Your task to perform on an android device: Clear all items from cart on bestbuy. Image 0: 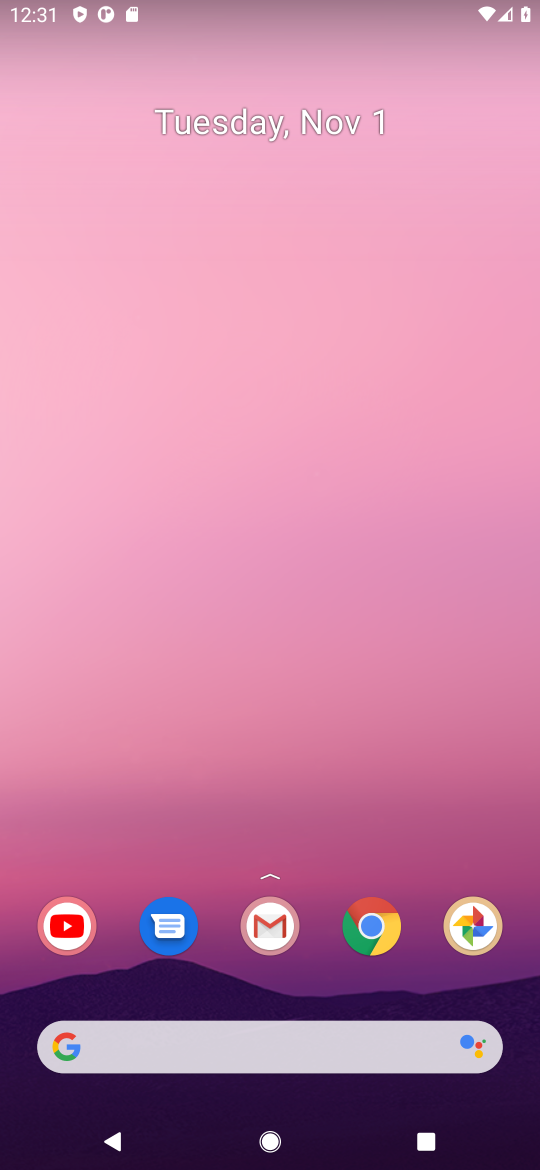
Step 0: click (370, 917)
Your task to perform on an android device: Clear all items from cart on bestbuy. Image 1: 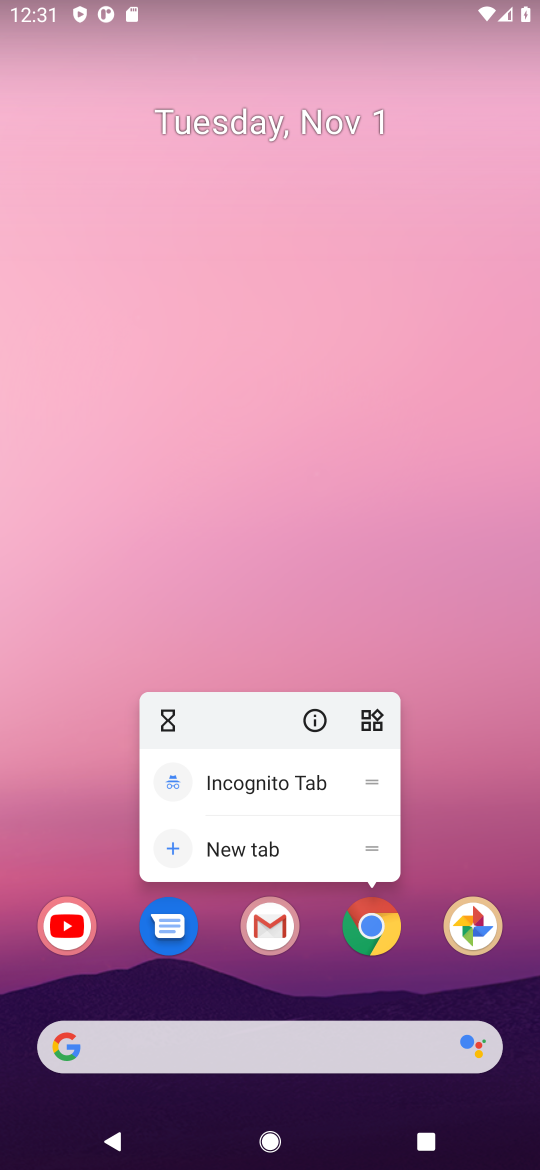
Step 1: click (377, 945)
Your task to perform on an android device: Clear all items from cart on bestbuy. Image 2: 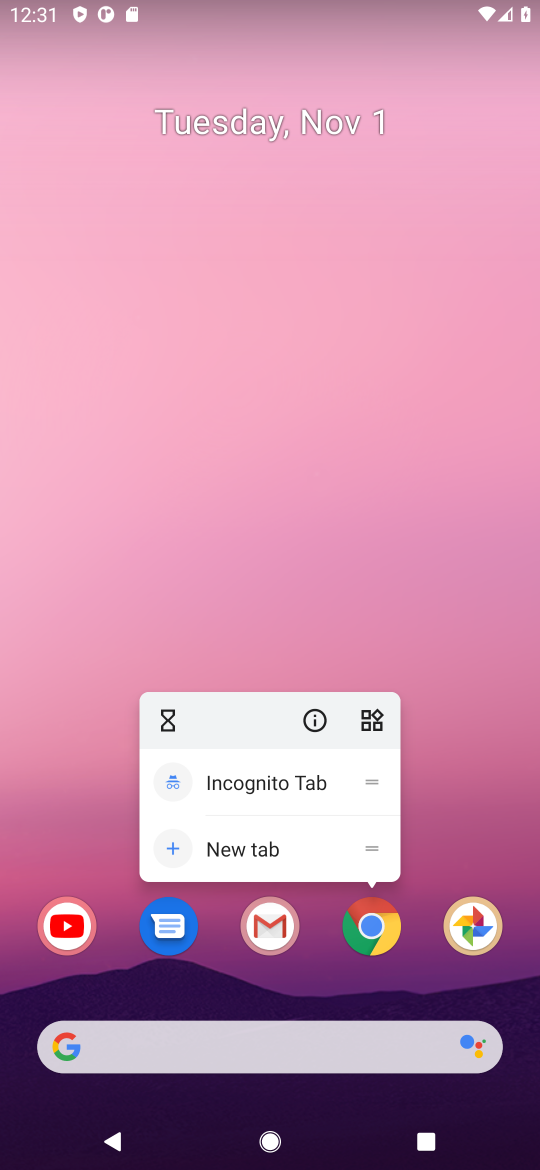
Step 2: click (364, 926)
Your task to perform on an android device: Clear all items from cart on bestbuy. Image 3: 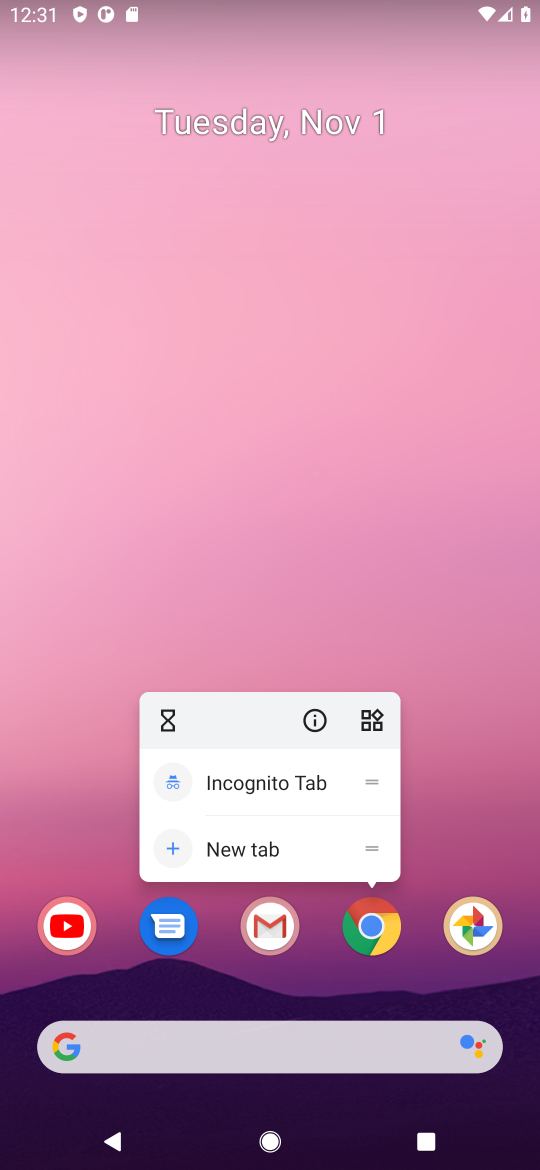
Step 3: click (380, 929)
Your task to perform on an android device: Clear all items from cart on bestbuy. Image 4: 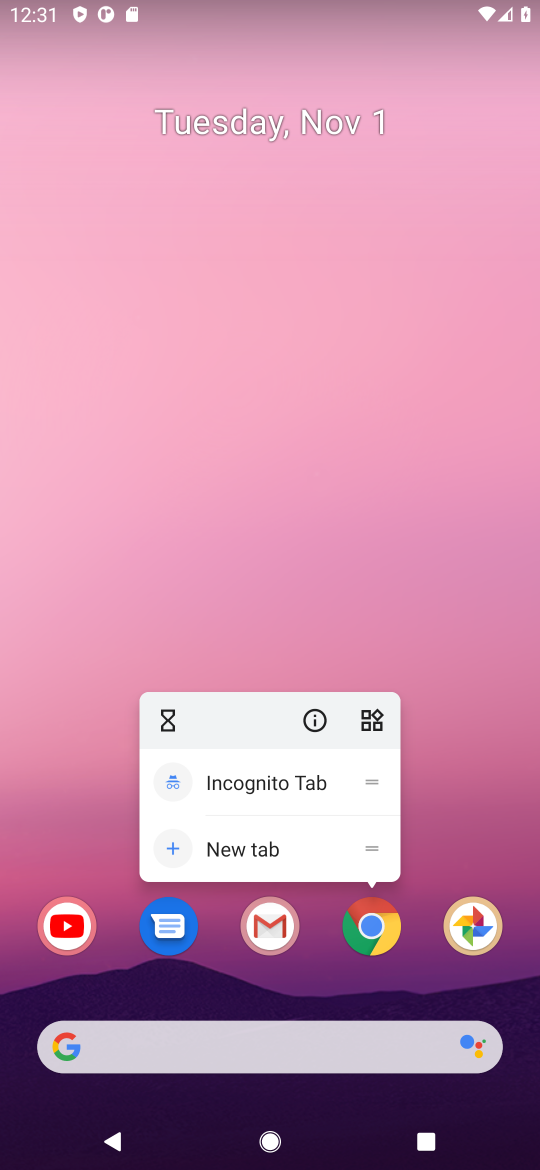
Step 4: click (376, 928)
Your task to perform on an android device: Clear all items from cart on bestbuy. Image 5: 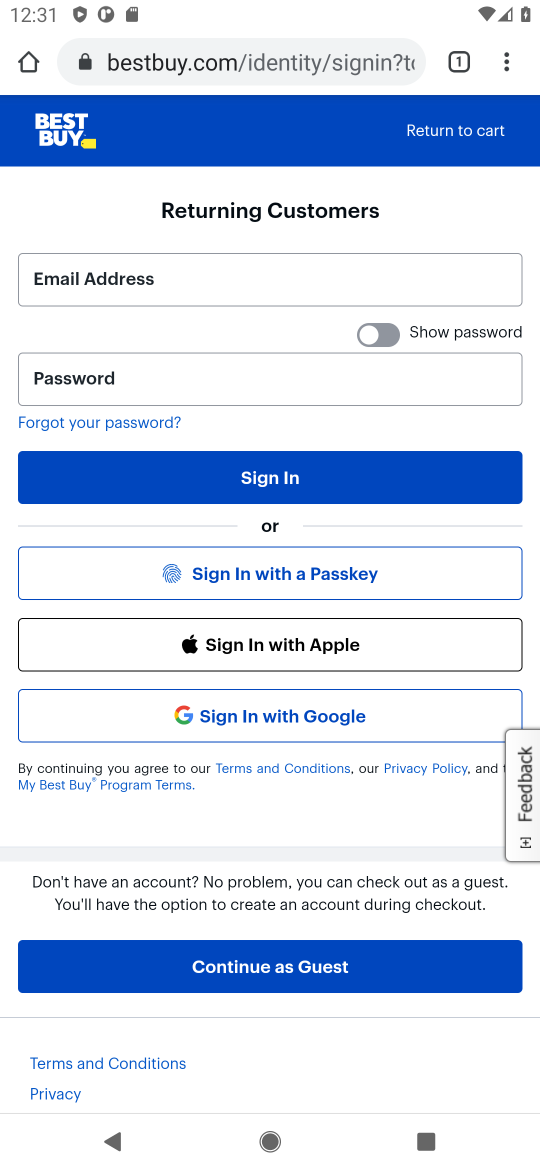
Step 5: click (164, 68)
Your task to perform on an android device: Clear all items from cart on bestbuy. Image 6: 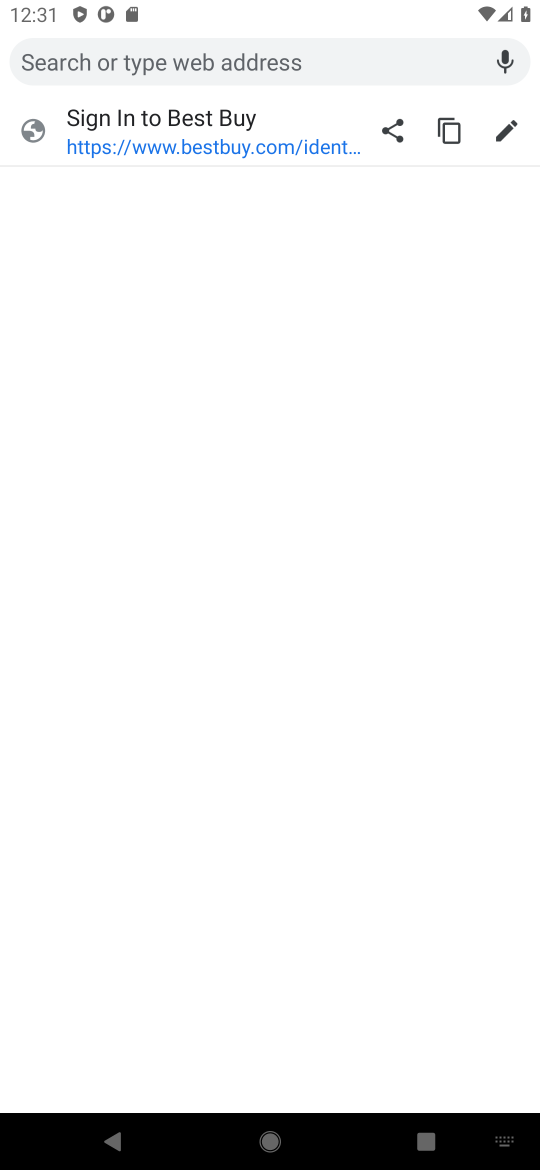
Step 6: click (231, 157)
Your task to perform on an android device: Clear all items from cart on bestbuy. Image 7: 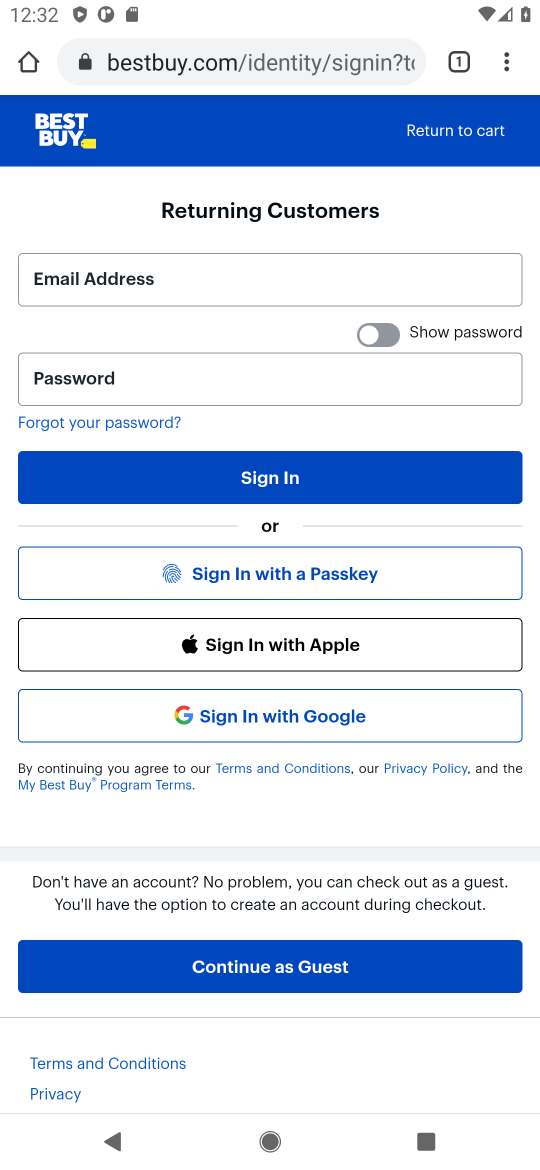
Step 7: click (83, 139)
Your task to perform on an android device: Clear all items from cart on bestbuy. Image 8: 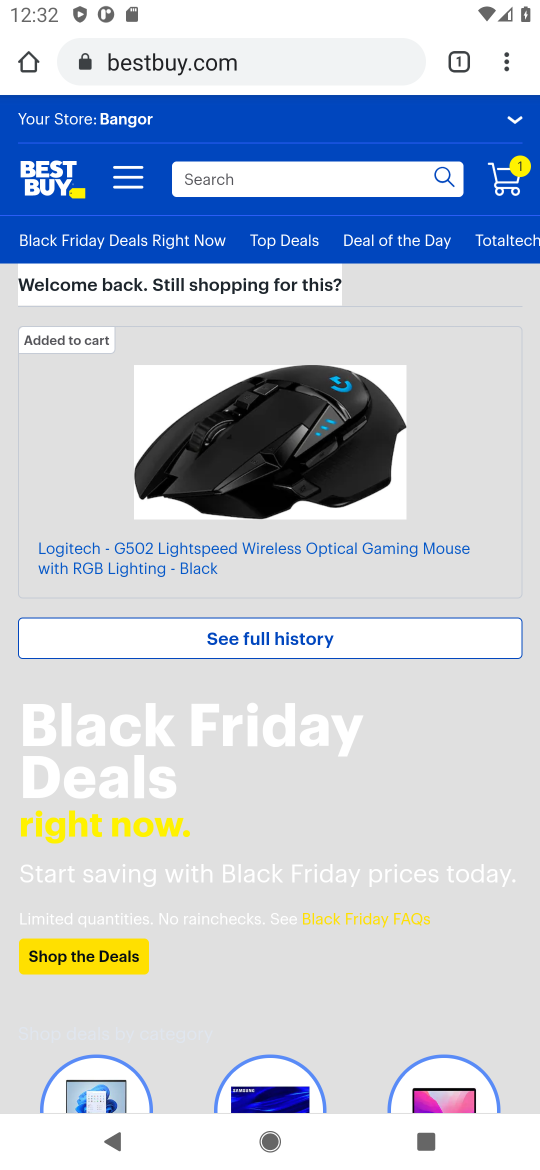
Step 8: click (492, 184)
Your task to perform on an android device: Clear all items from cart on bestbuy. Image 9: 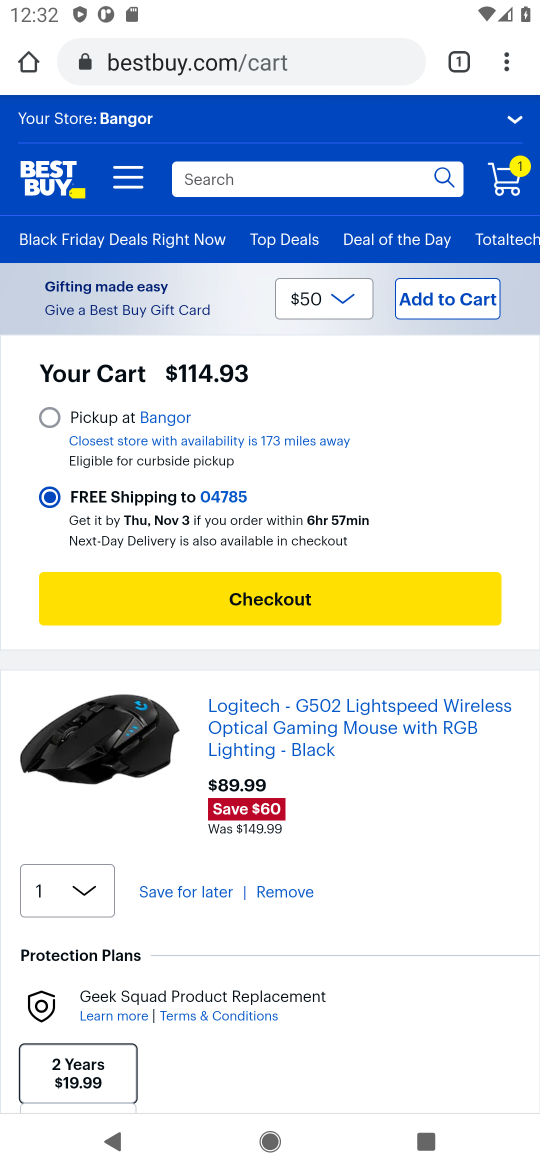
Step 9: drag from (339, 1009) to (469, 335)
Your task to perform on an android device: Clear all items from cart on bestbuy. Image 10: 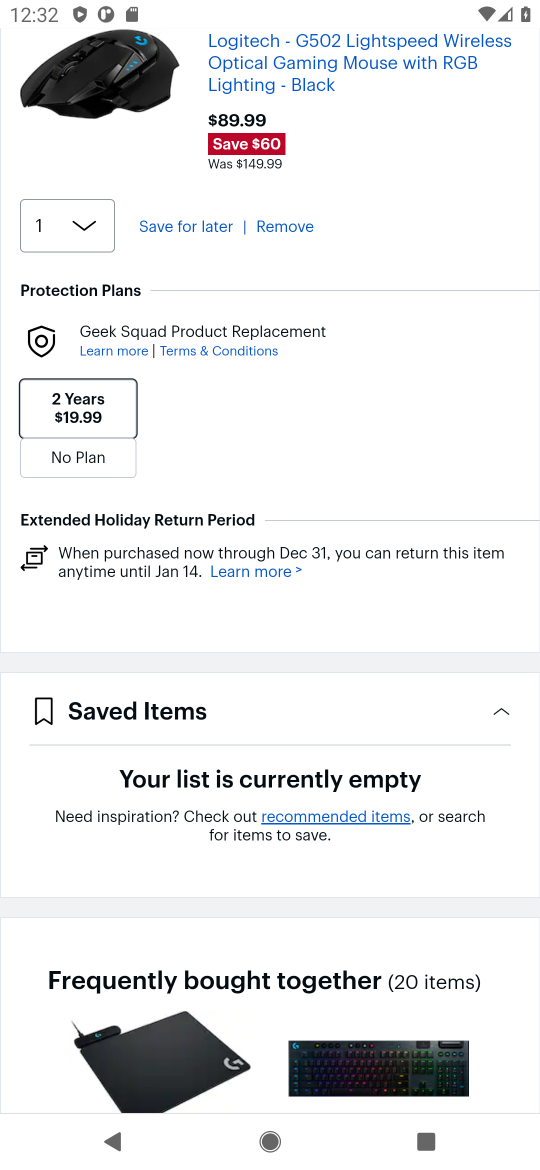
Step 10: drag from (343, 771) to (346, 450)
Your task to perform on an android device: Clear all items from cart on bestbuy. Image 11: 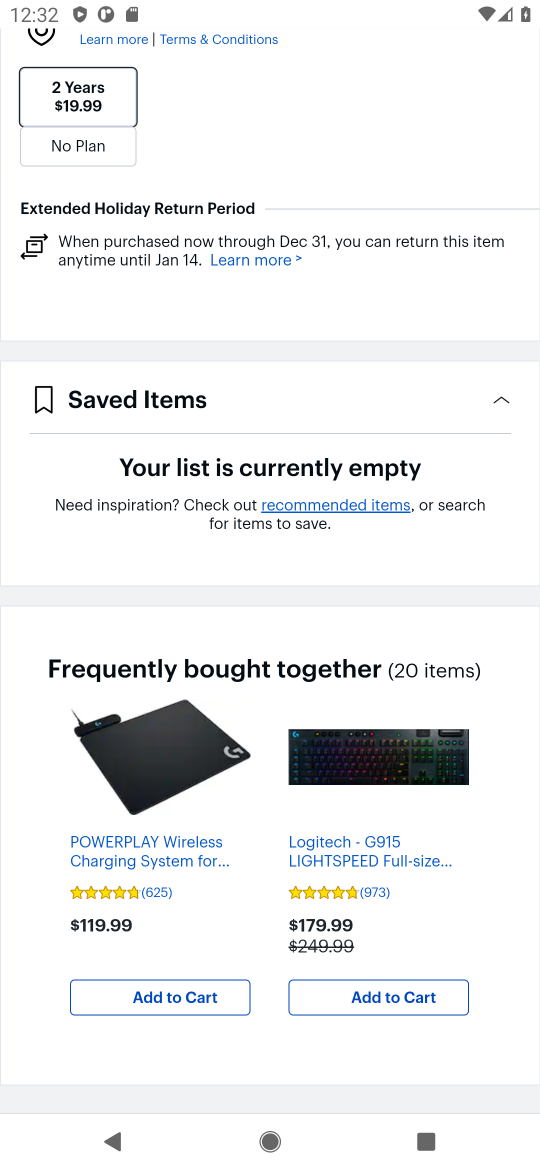
Step 11: drag from (339, 553) to (358, 960)
Your task to perform on an android device: Clear all items from cart on bestbuy. Image 12: 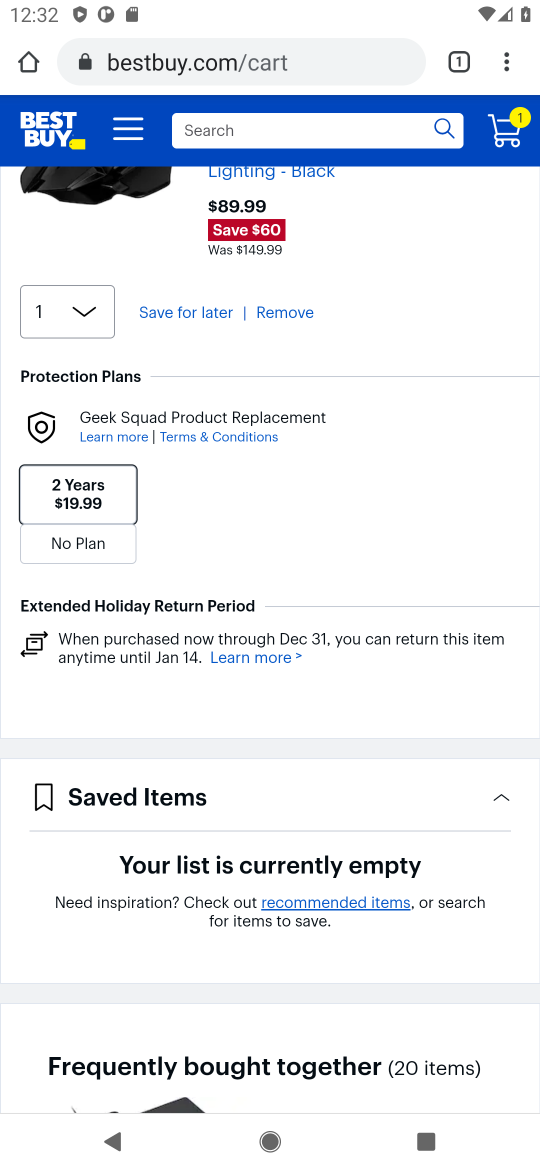
Step 12: click (271, 310)
Your task to perform on an android device: Clear all items from cart on bestbuy. Image 13: 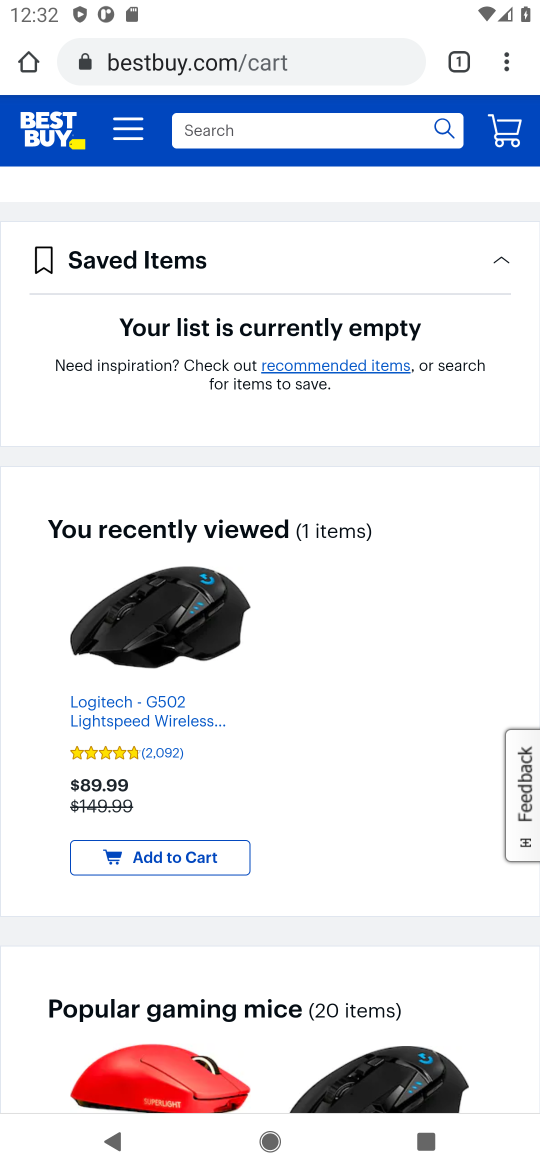
Step 13: drag from (335, 820) to (357, 512)
Your task to perform on an android device: Clear all items from cart on bestbuy. Image 14: 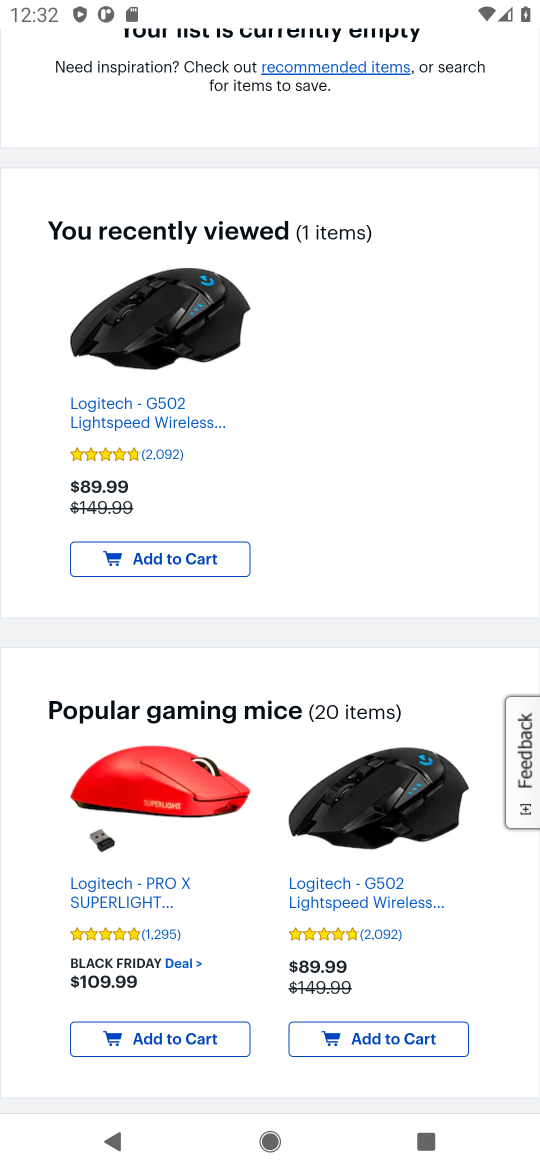
Step 14: press back button
Your task to perform on an android device: Clear all items from cart on bestbuy. Image 15: 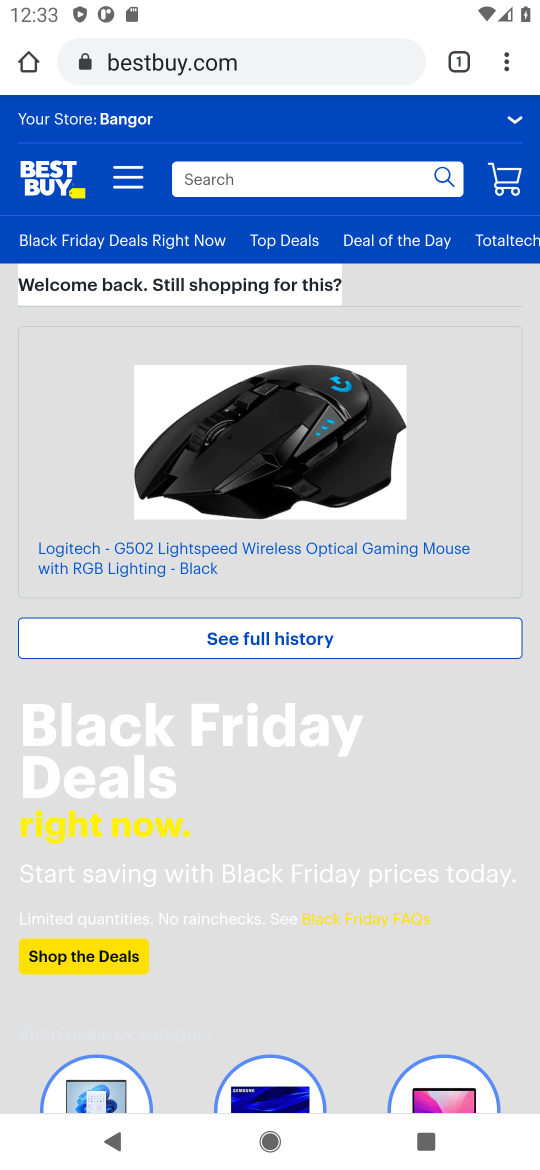
Step 15: press back button
Your task to perform on an android device: Clear all items from cart on bestbuy. Image 16: 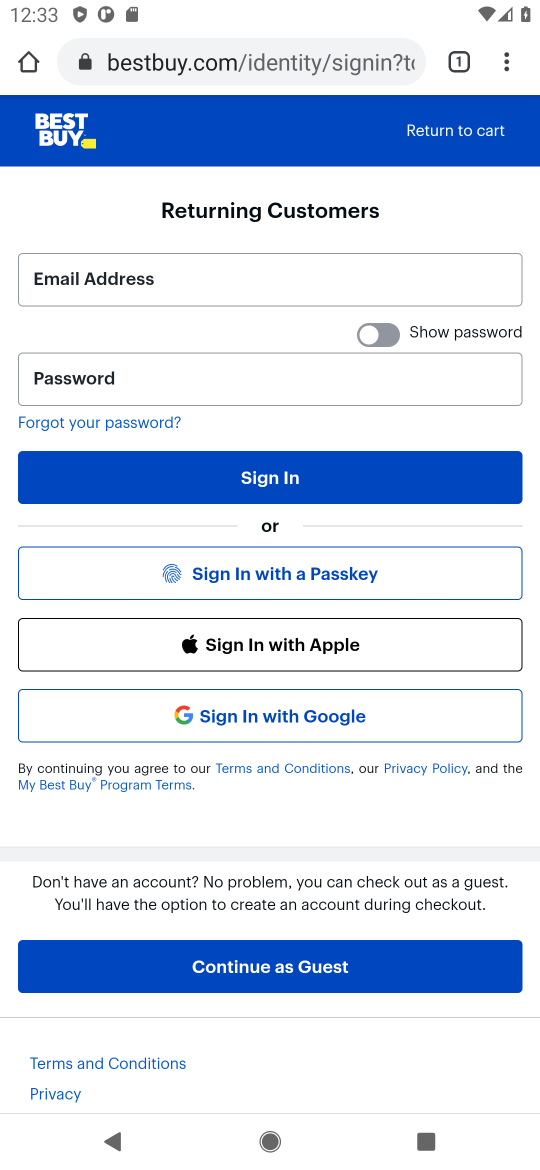
Step 16: press back button
Your task to perform on an android device: Clear all items from cart on bestbuy. Image 17: 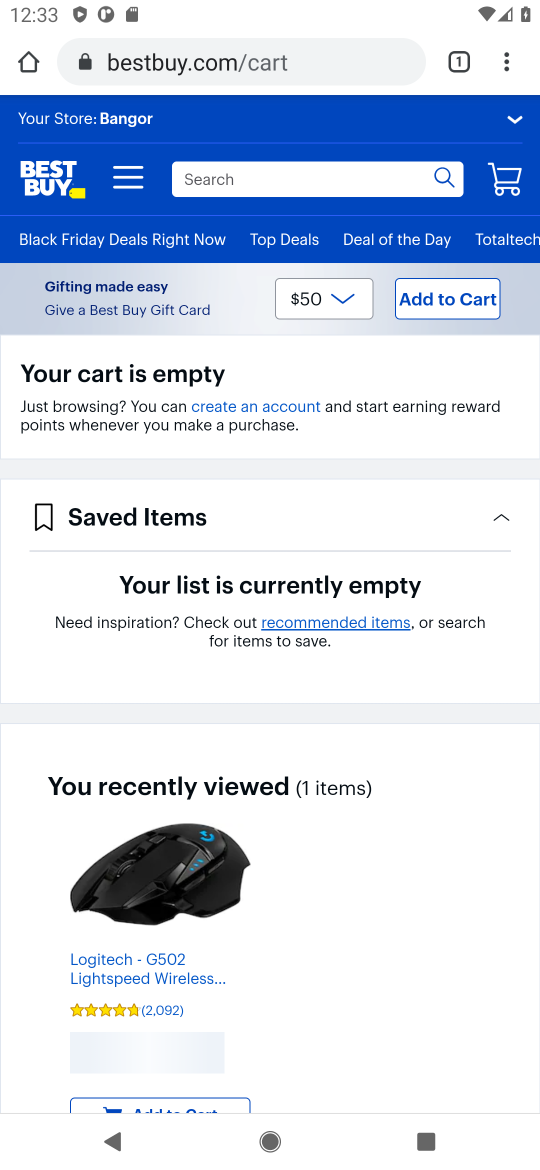
Step 17: drag from (419, 933) to (335, 340)
Your task to perform on an android device: Clear all items from cart on bestbuy. Image 18: 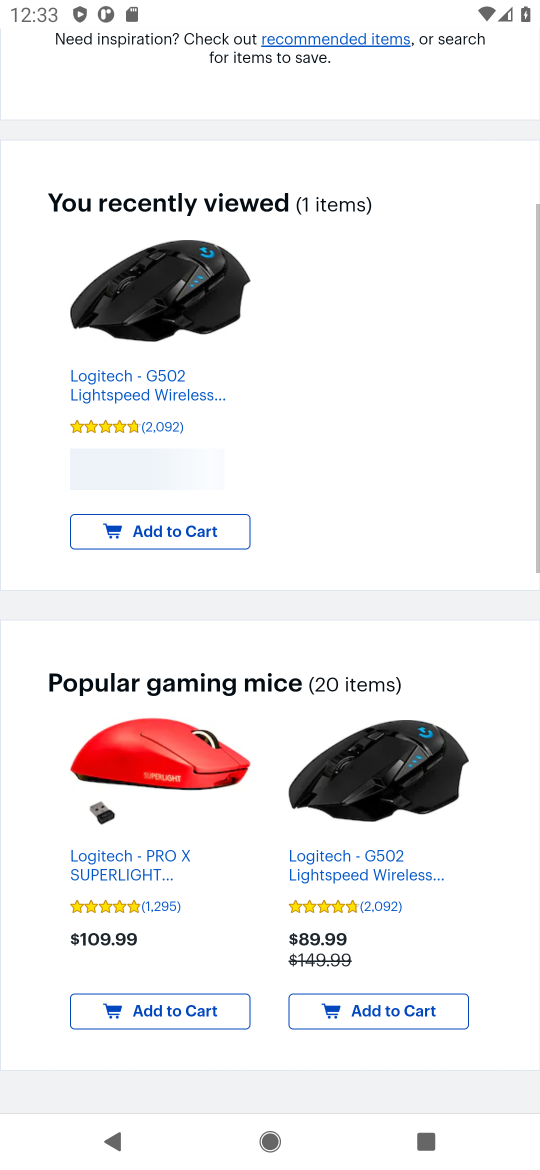
Step 18: drag from (219, 767) to (239, 366)
Your task to perform on an android device: Clear all items from cart on bestbuy. Image 19: 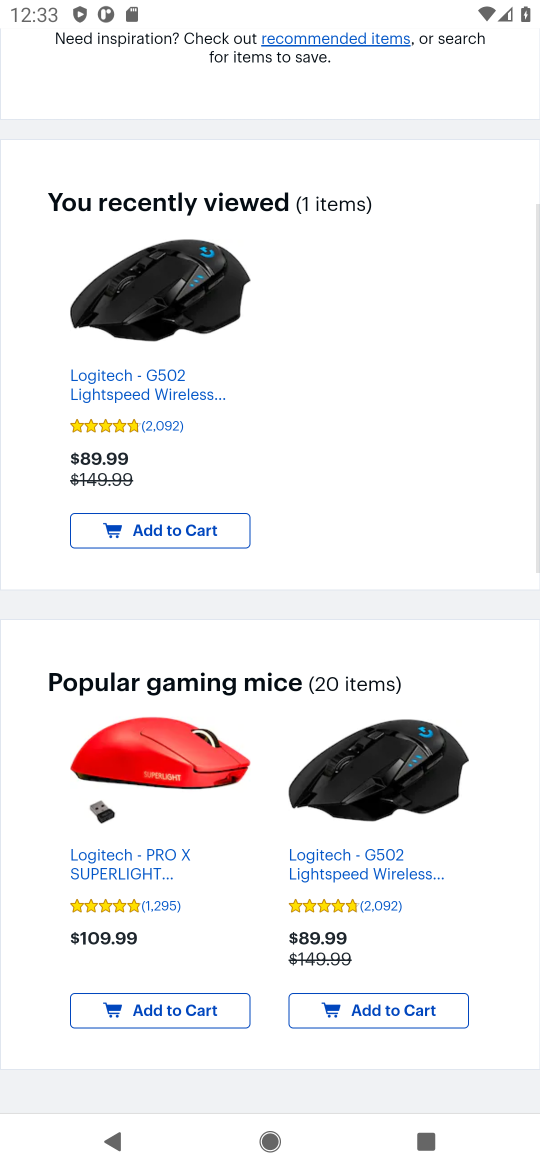
Step 19: drag from (326, 617) to (336, 379)
Your task to perform on an android device: Clear all items from cart on bestbuy. Image 20: 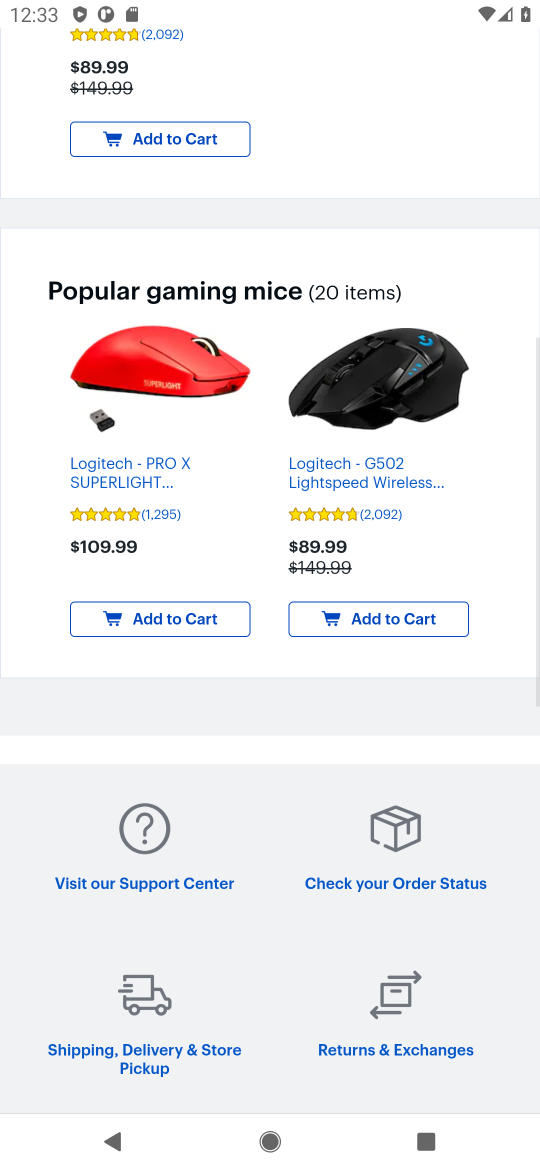
Step 20: drag from (352, 450) to (349, 341)
Your task to perform on an android device: Clear all items from cart on bestbuy. Image 21: 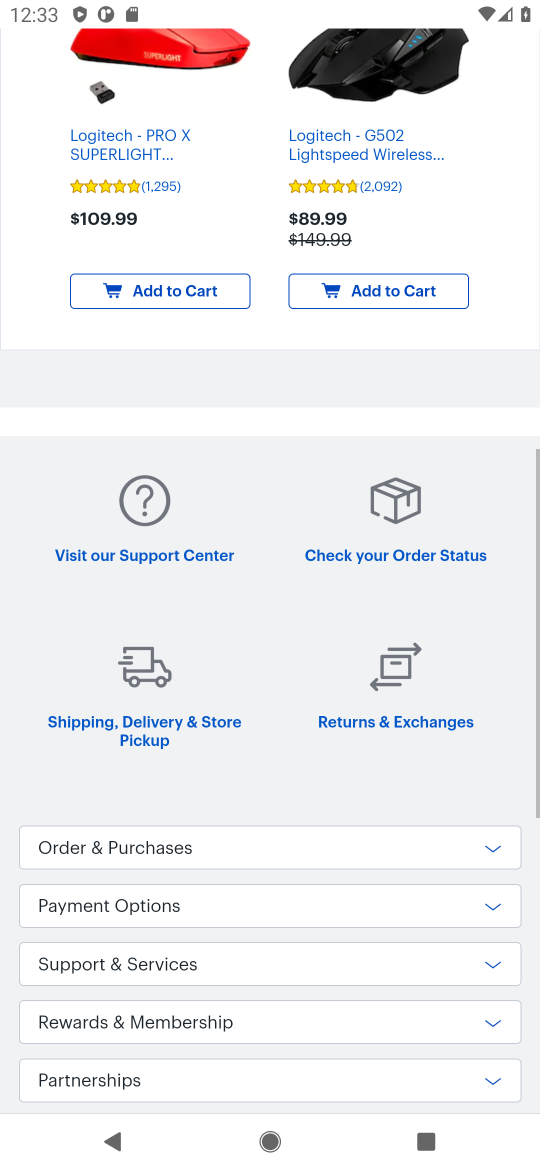
Step 21: drag from (330, 468) to (322, 360)
Your task to perform on an android device: Clear all items from cart on bestbuy. Image 22: 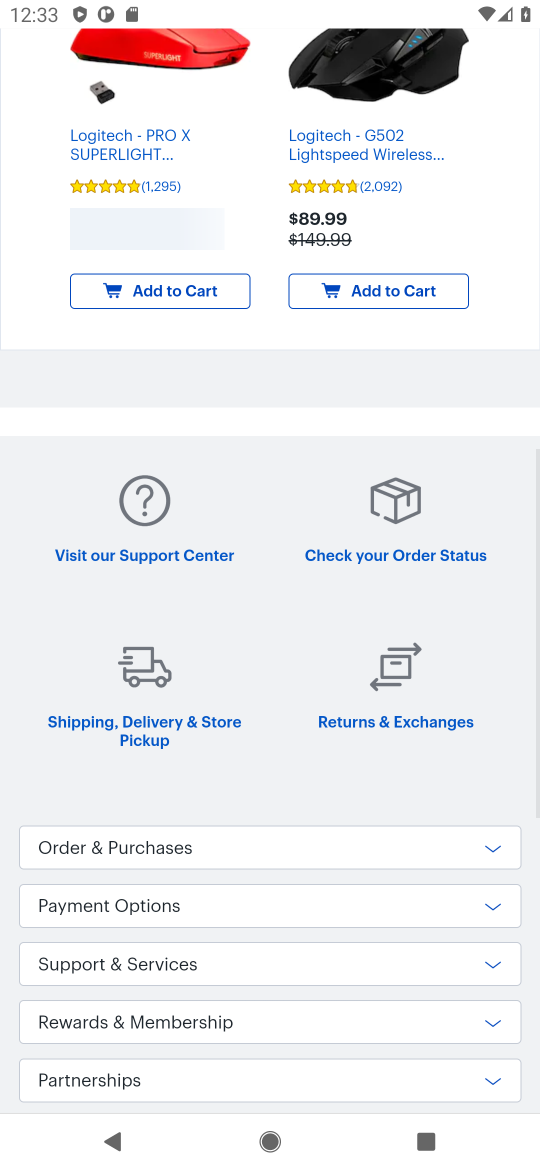
Step 22: drag from (296, 531) to (291, 383)
Your task to perform on an android device: Clear all items from cart on bestbuy. Image 23: 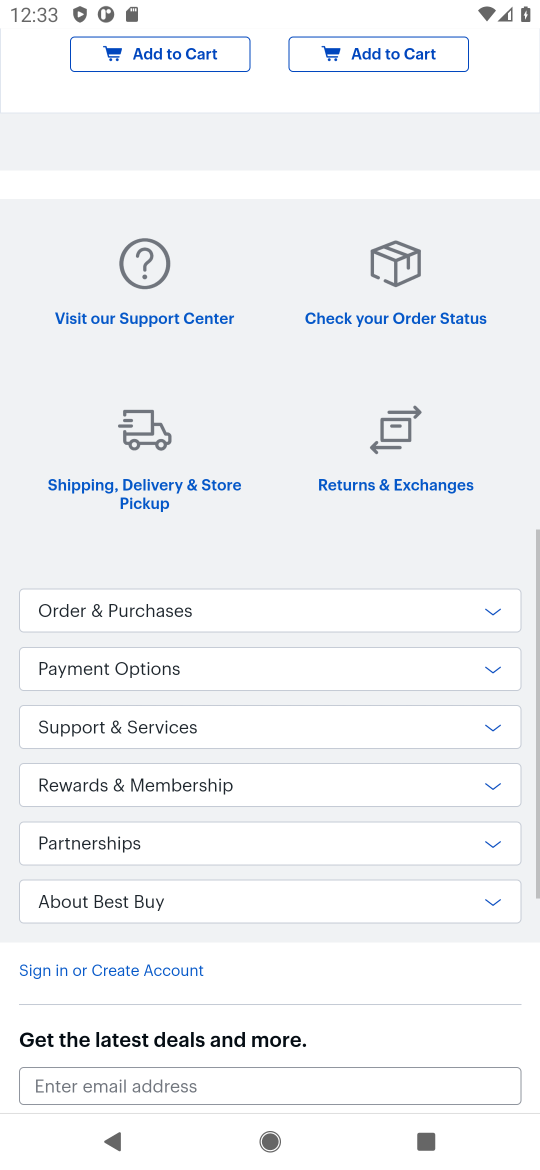
Step 23: click (344, 364)
Your task to perform on an android device: Clear all items from cart on bestbuy. Image 24: 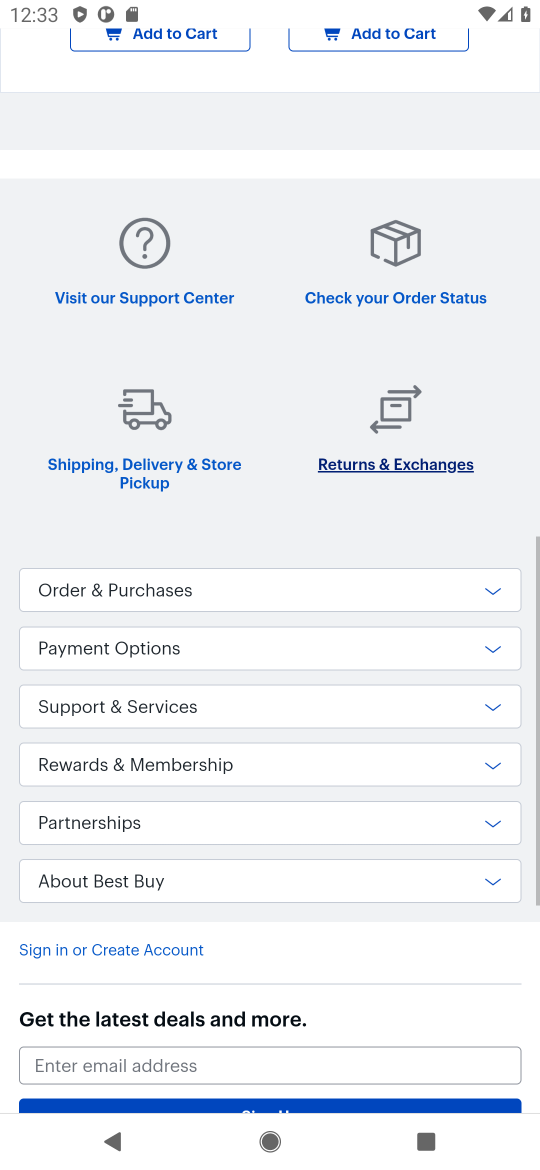
Step 24: drag from (356, 697) to (382, 343)
Your task to perform on an android device: Clear all items from cart on bestbuy. Image 25: 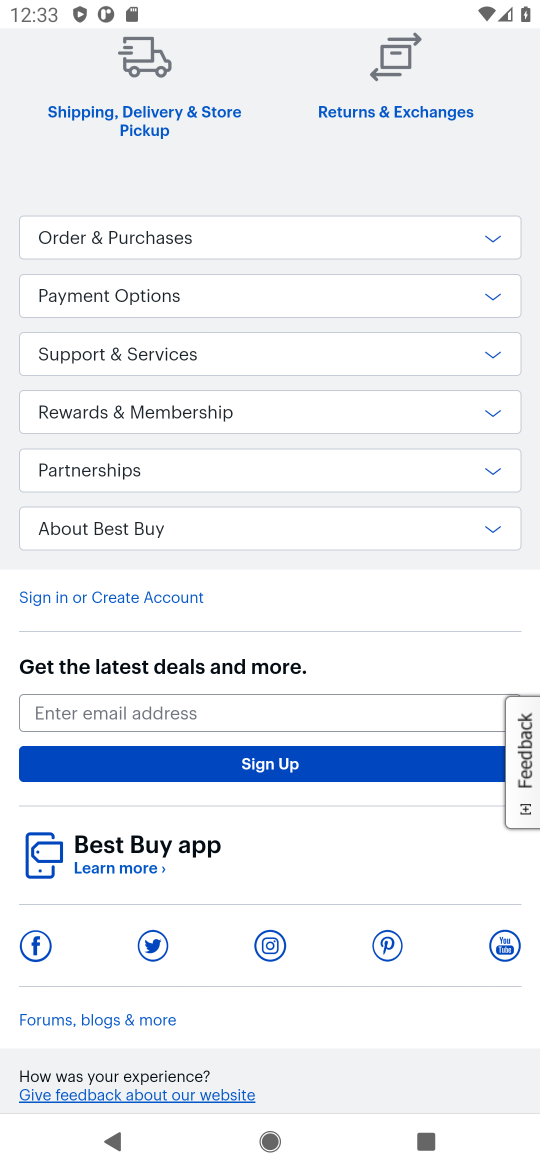
Step 25: drag from (333, 479) to (335, 223)
Your task to perform on an android device: Clear all items from cart on bestbuy. Image 26: 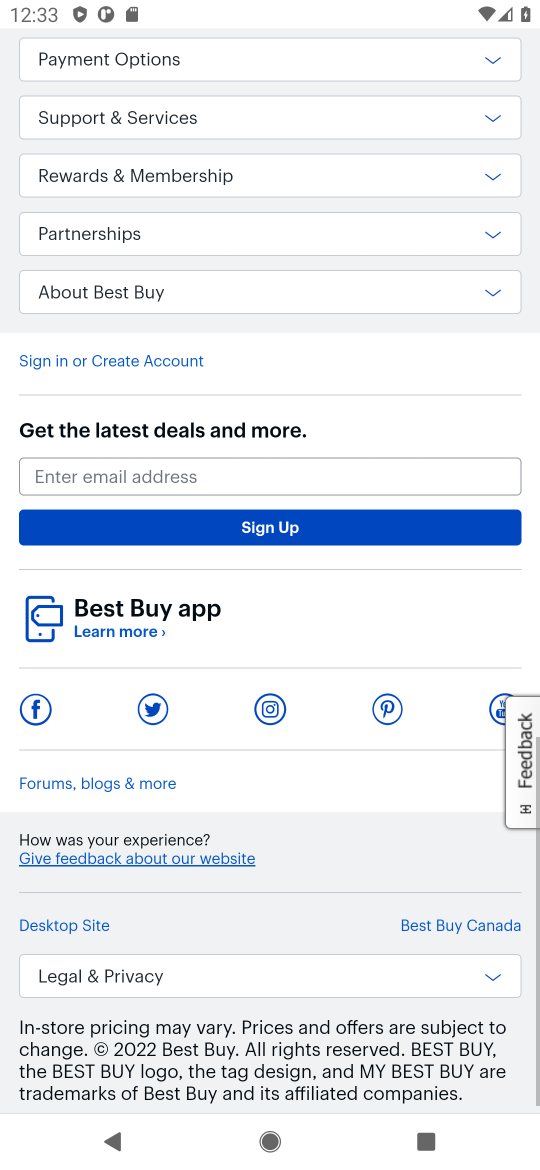
Step 26: drag from (334, 609) to (332, 256)
Your task to perform on an android device: Clear all items from cart on bestbuy. Image 27: 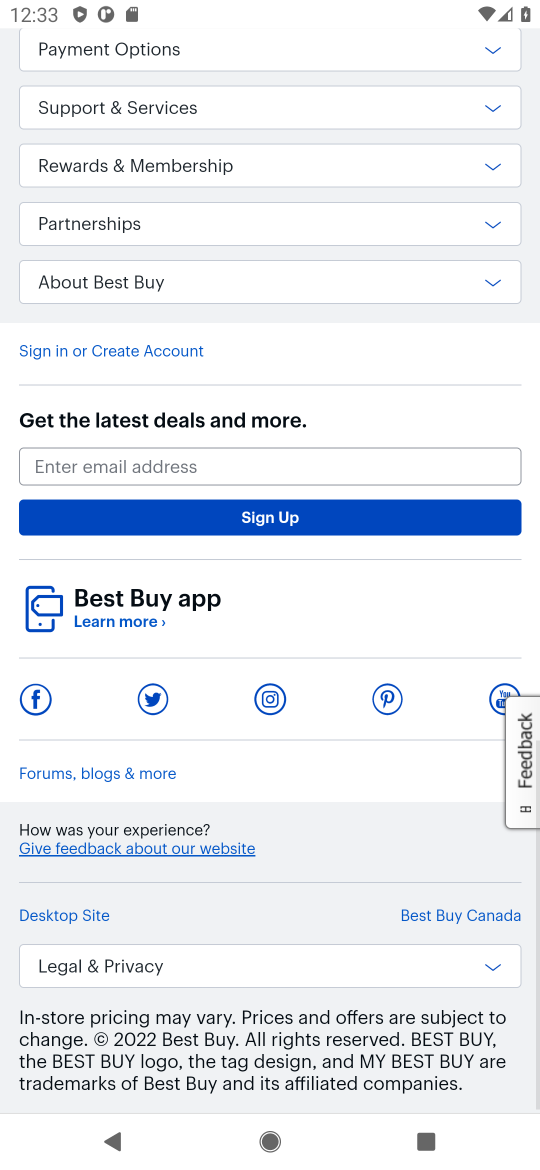
Step 27: drag from (332, 507) to (345, 330)
Your task to perform on an android device: Clear all items from cart on bestbuy. Image 28: 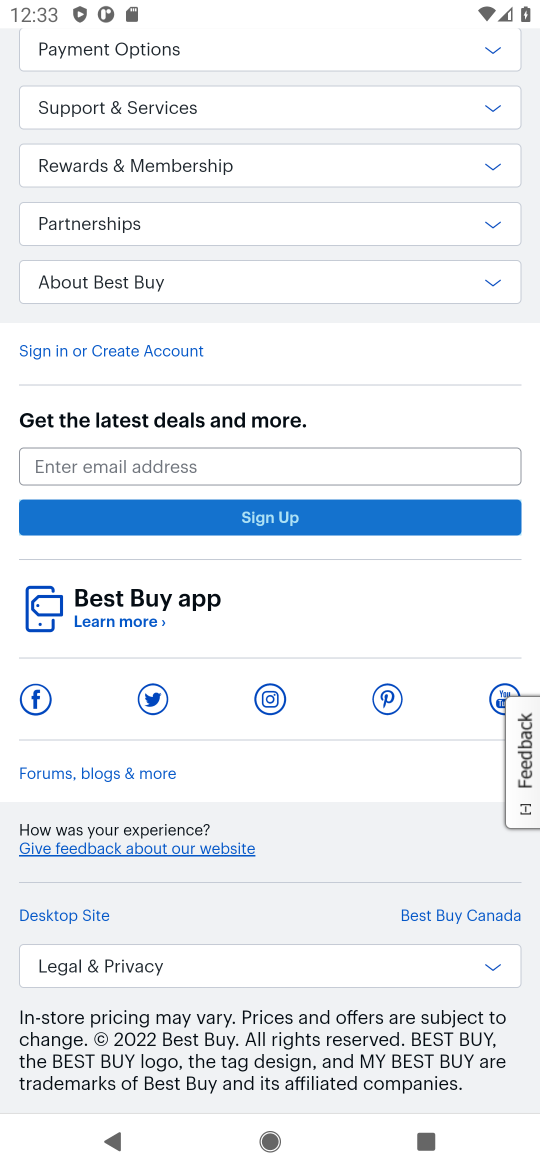
Step 28: drag from (317, 693) to (372, 330)
Your task to perform on an android device: Clear all items from cart on bestbuy. Image 29: 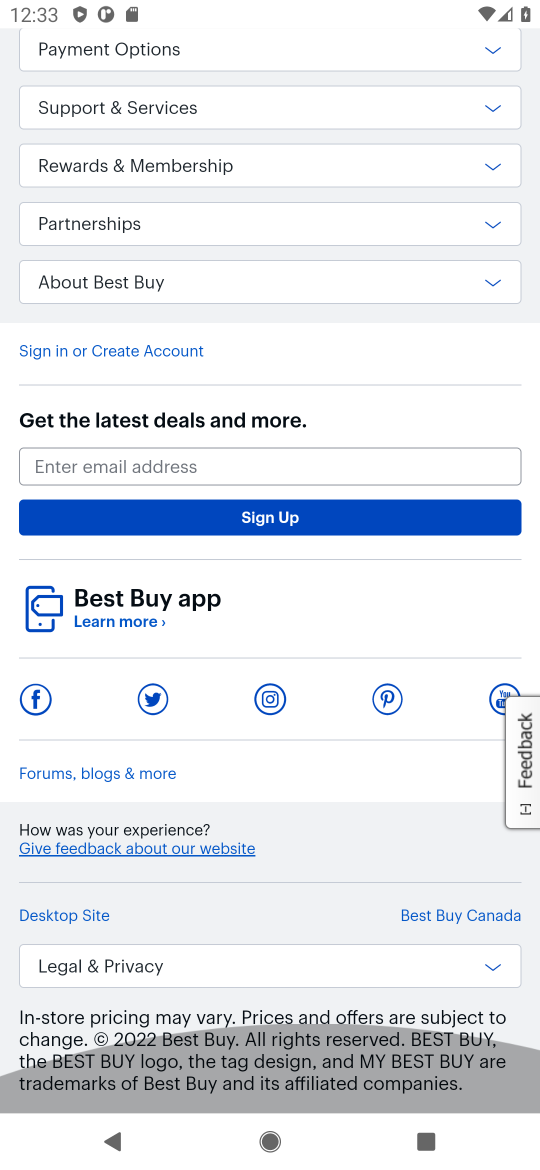
Step 29: click (356, 301)
Your task to perform on an android device: Clear all items from cart on bestbuy. Image 30: 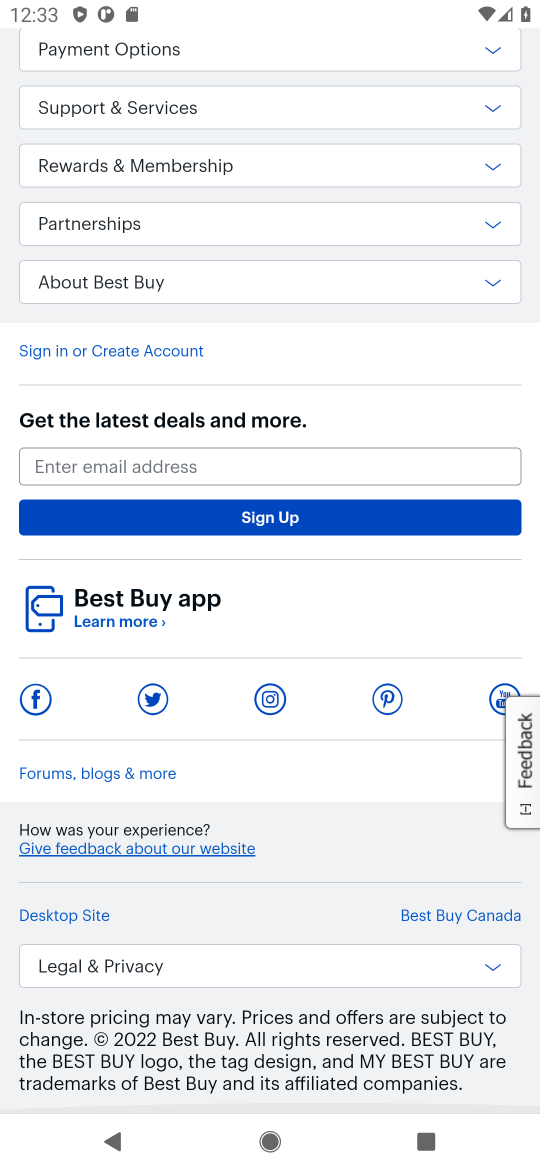
Step 30: drag from (339, 699) to (341, 233)
Your task to perform on an android device: Clear all items from cart on bestbuy. Image 31: 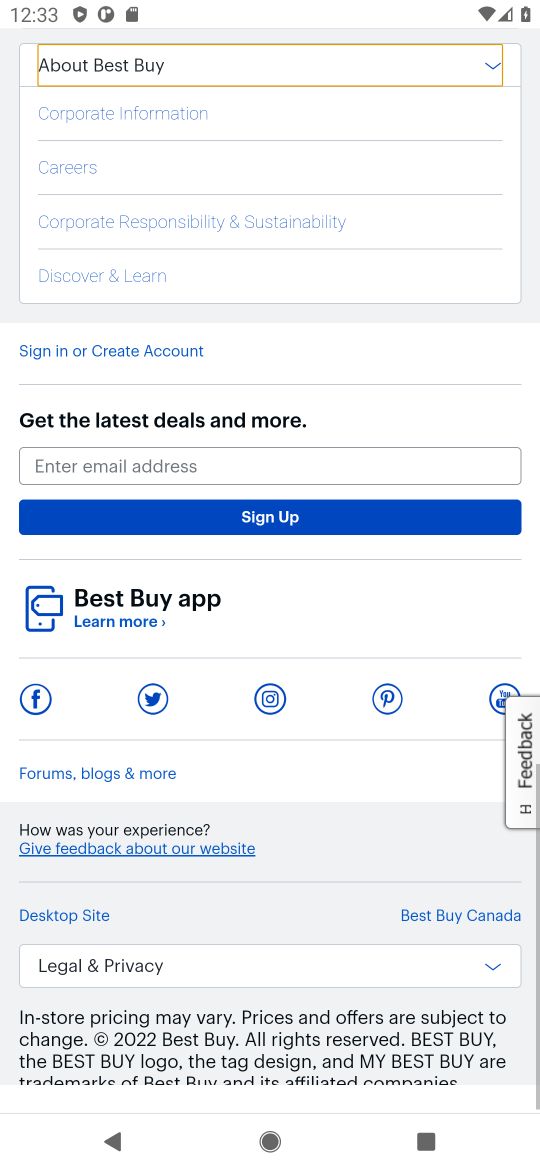
Step 31: click (377, 310)
Your task to perform on an android device: Clear all items from cart on bestbuy. Image 32: 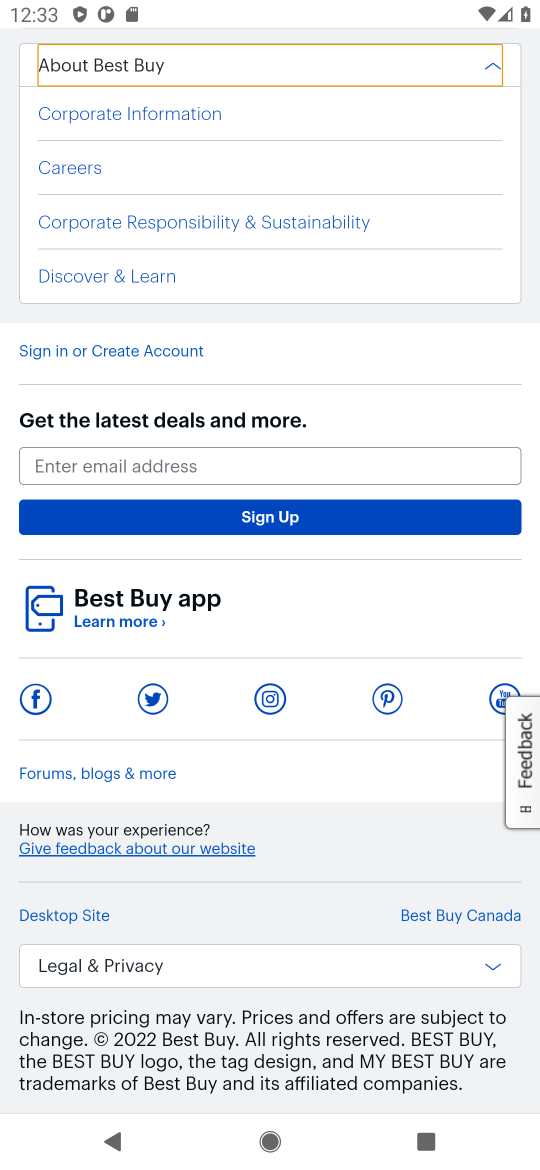
Step 32: task complete